Your task to perform on an android device: Is it going to rain this weekend? Image 0: 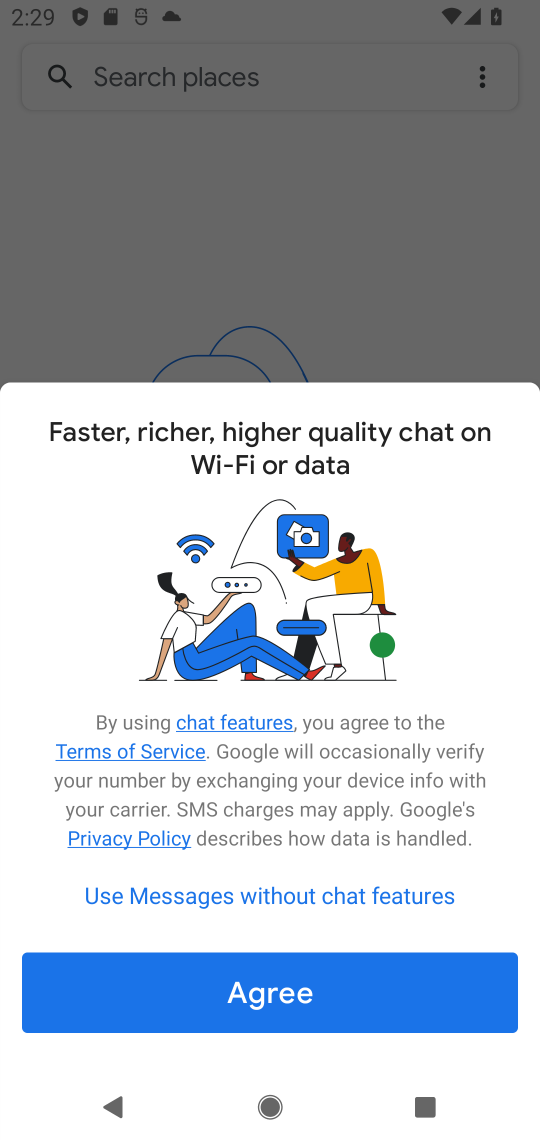
Step 0: press home button
Your task to perform on an android device: Is it going to rain this weekend? Image 1: 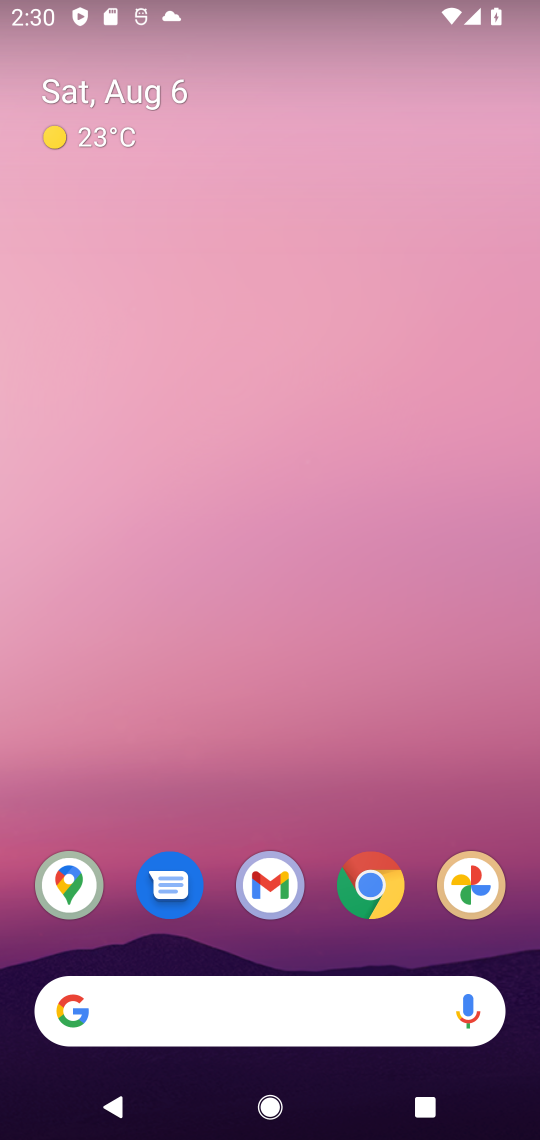
Step 1: drag from (434, 936) to (274, 1)
Your task to perform on an android device: Is it going to rain this weekend? Image 2: 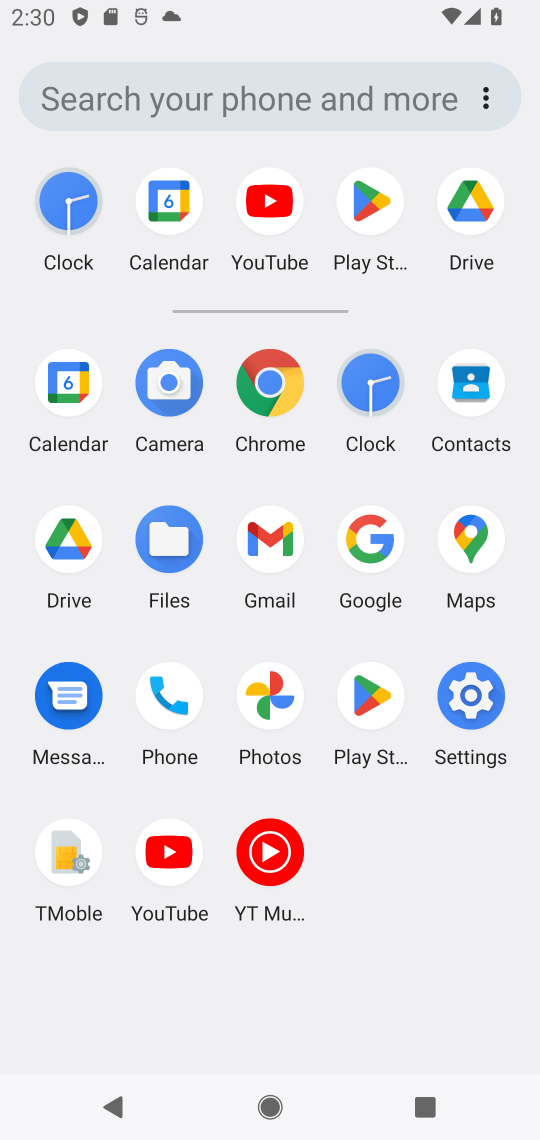
Step 2: click (379, 521)
Your task to perform on an android device: Is it going to rain this weekend? Image 3: 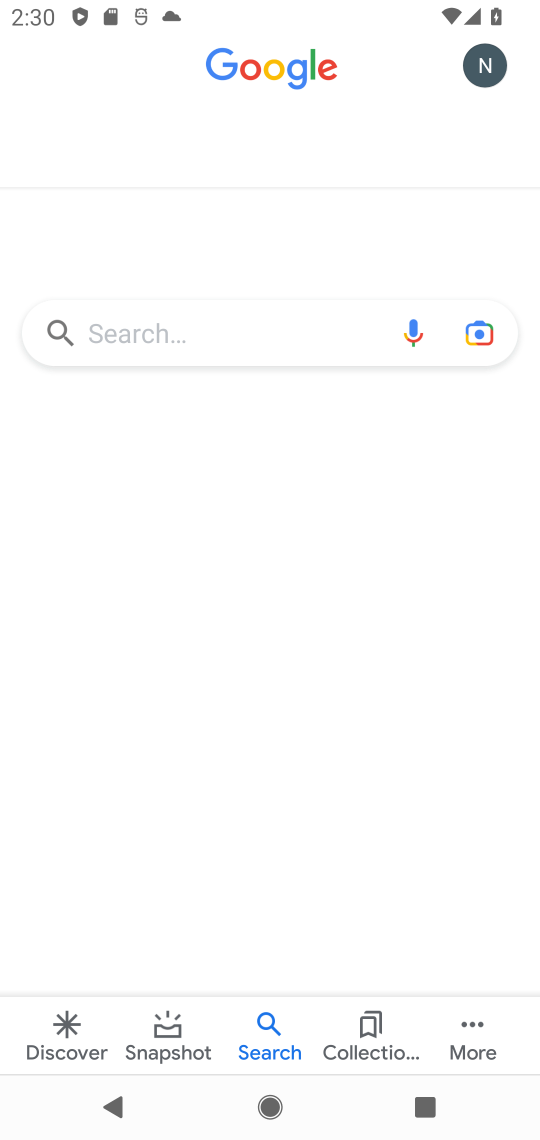
Step 3: click (226, 322)
Your task to perform on an android device: Is it going to rain this weekend? Image 4: 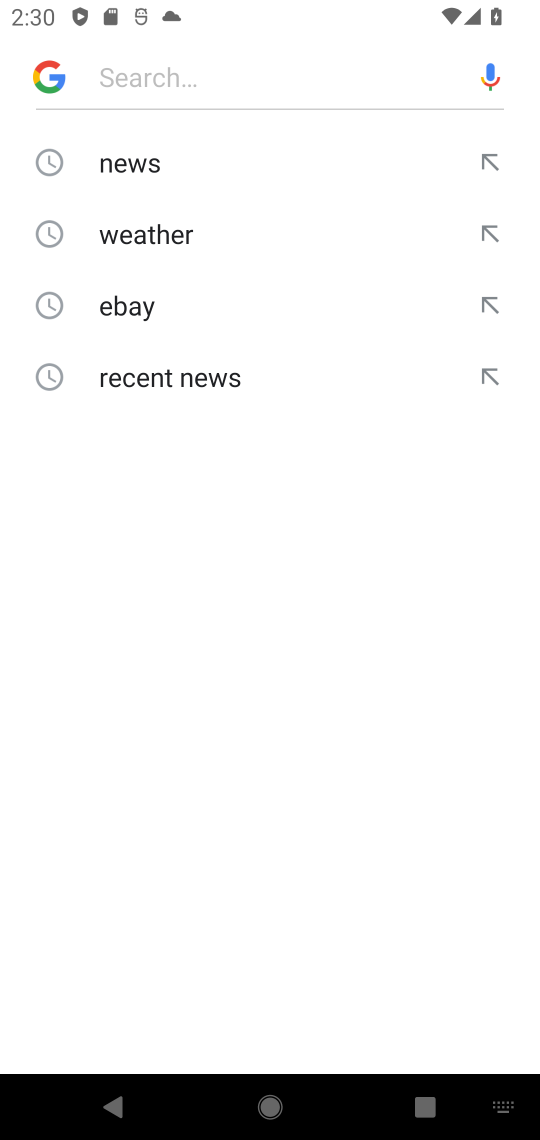
Step 4: type "Is it going to rain this weekend?"
Your task to perform on an android device: Is it going to rain this weekend? Image 5: 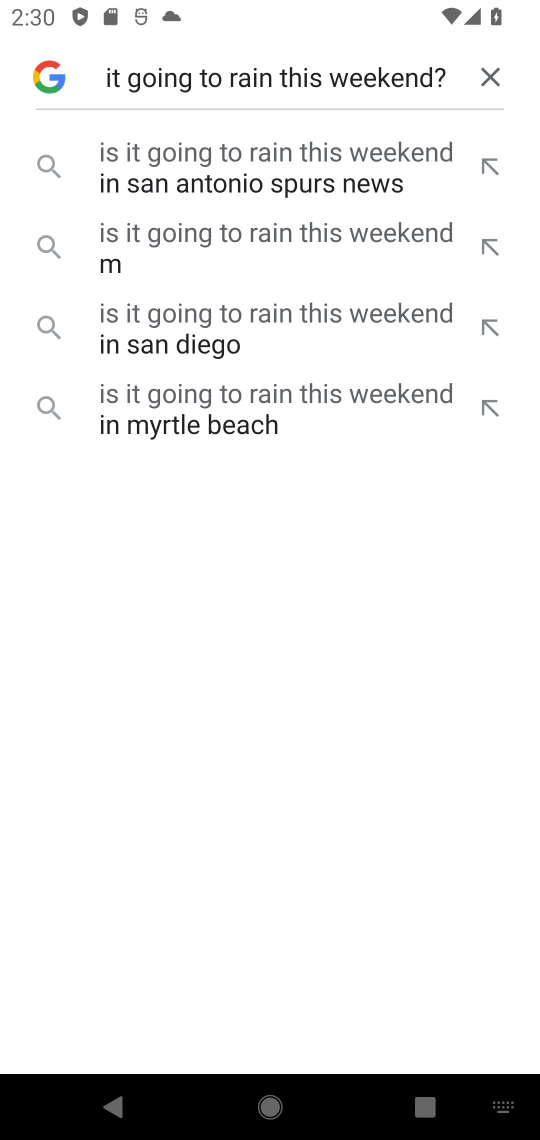
Step 5: task complete